Your task to perform on an android device: Is it going to rain this weekend? Image 0: 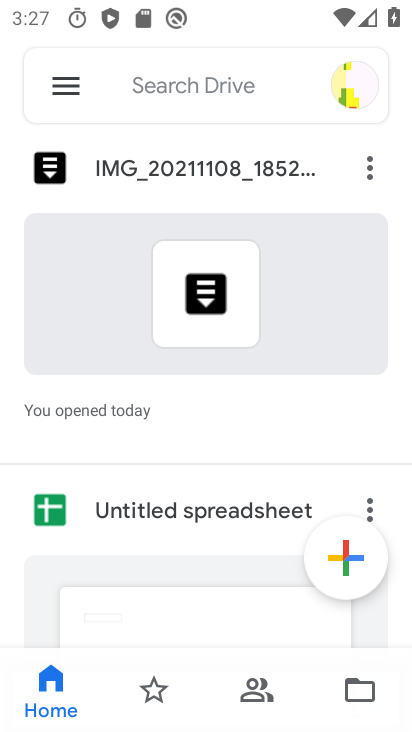
Step 0: press home button
Your task to perform on an android device: Is it going to rain this weekend? Image 1: 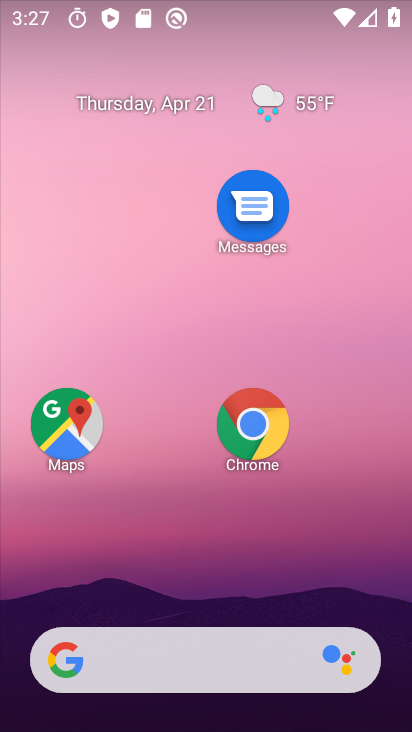
Step 1: drag from (184, 553) to (209, 80)
Your task to perform on an android device: Is it going to rain this weekend? Image 2: 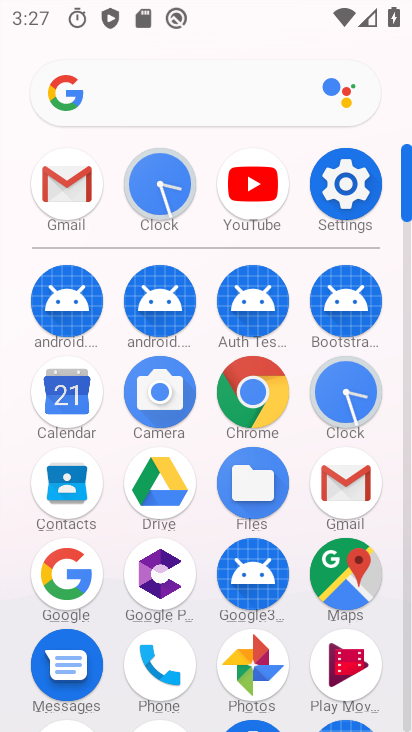
Step 2: click (78, 574)
Your task to perform on an android device: Is it going to rain this weekend? Image 3: 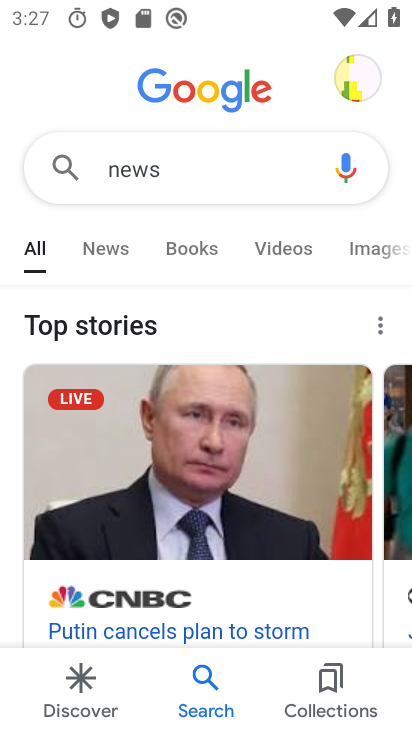
Step 3: click (210, 167)
Your task to perform on an android device: Is it going to rain this weekend? Image 4: 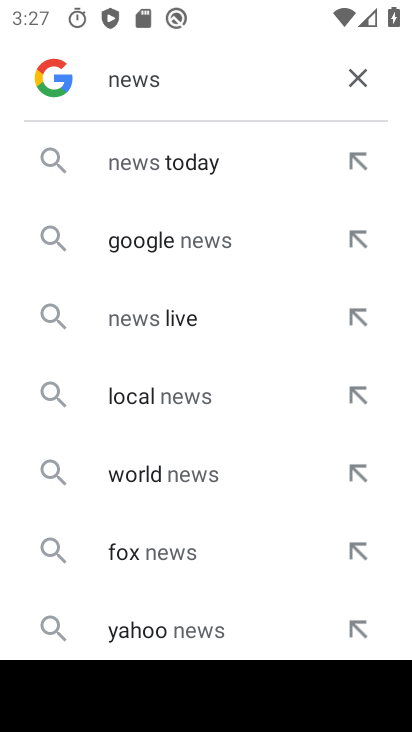
Step 4: click (350, 82)
Your task to perform on an android device: Is it going to rain this weekend? Image 5: 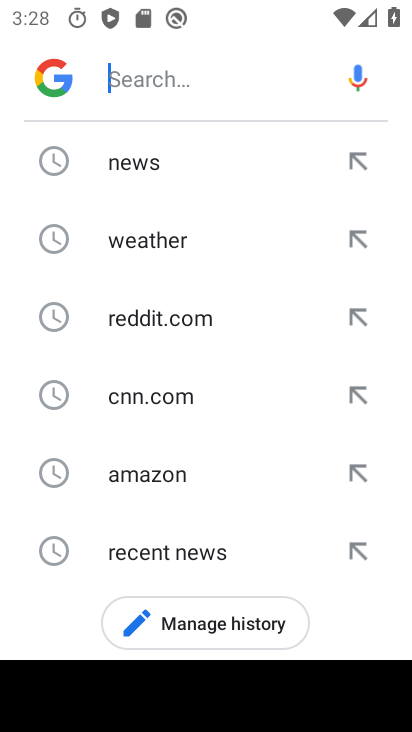
Step 5: type "is it going to rain this weekend"
Your task to perform on an android device: Is it going to rain this weekend? Image 6: 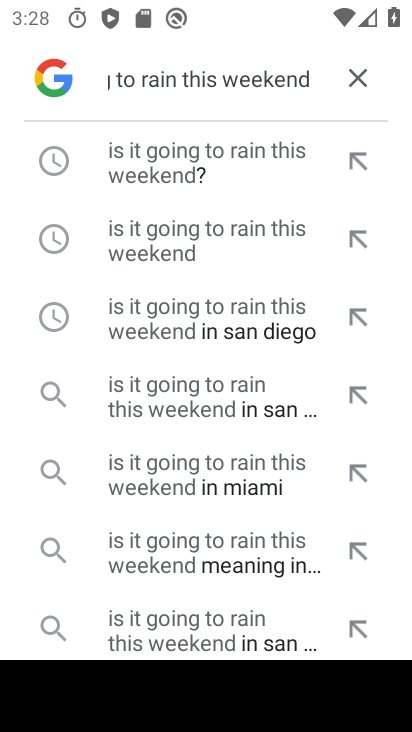
Step 6: click (223, 160)
Your task to perform on an android device: Is it going to rain this weekend? Image 7: 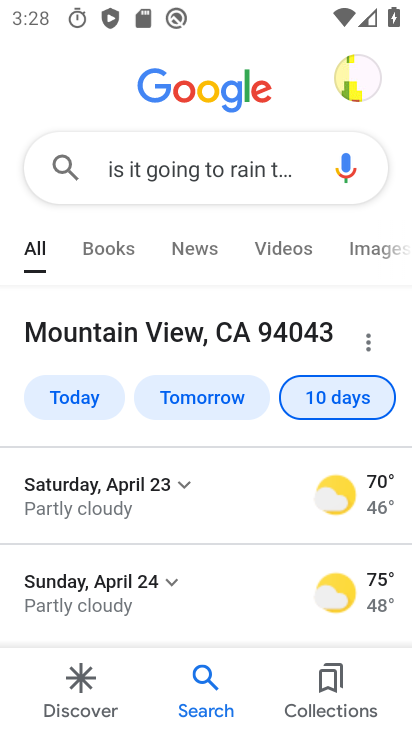
Step 7: task complete